Your task to perform on an android device: toggle priority inbox in the gmail app Image 0: 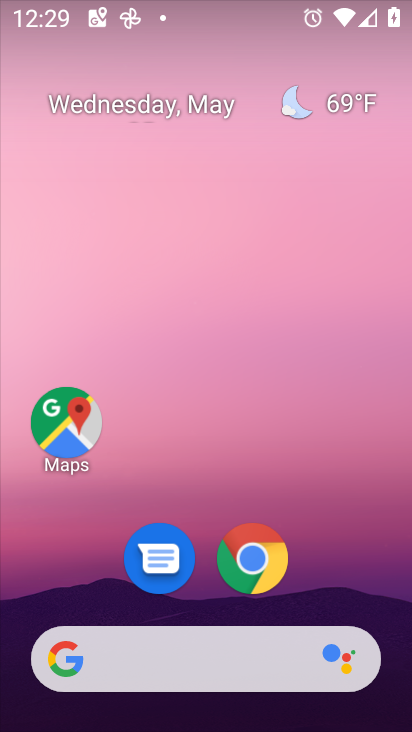
Step 0: drag from (397, 616) to (195, 77)
Your task to perform on an android device: toggle priority inbox in the gmail app Image 1: 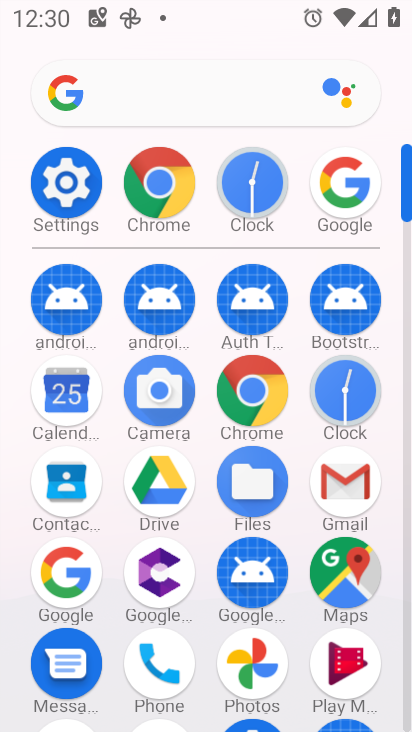
Step 1: click (330, 488)
Your task to perform on an android device: toggle priority inbox in the gmail app Image 2: 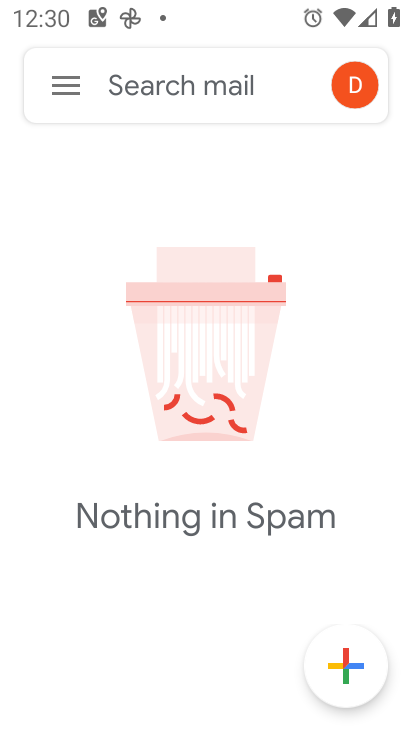
Step 2: click (71, 88)
Your task to perform on an android device: toggle priority inbox in the gmail app Image 3: 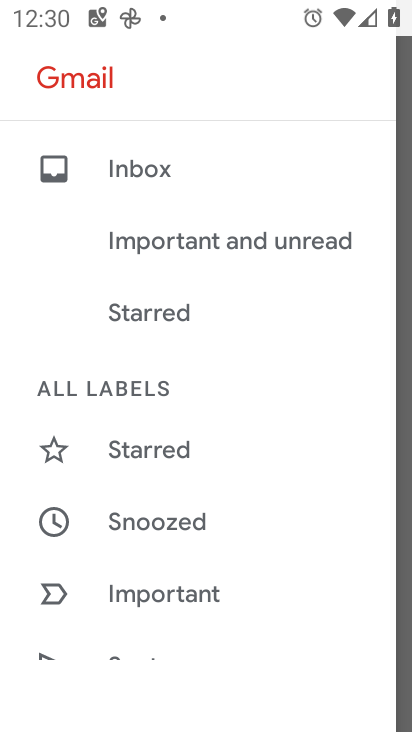
Step 3: drag from (199, 595) to (226, 131)
Your task to perform on an android device: toggle priority inbox in the gmail app Image 4: 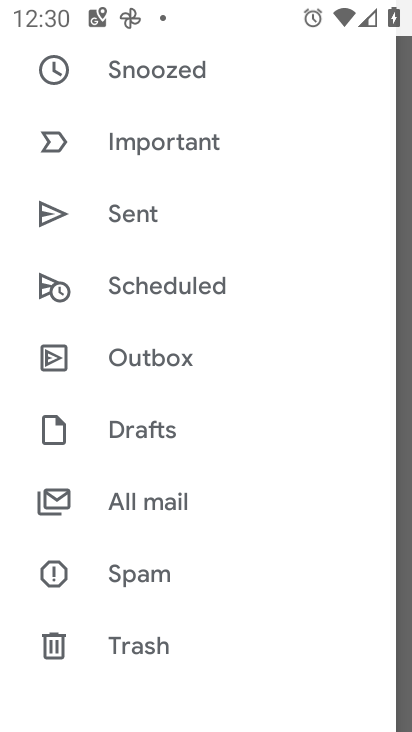
Step 4: drag from (205, 611) to (210, 168)
Your task to perform on an android device: toggle priority inbox in the gmail app Image 5: 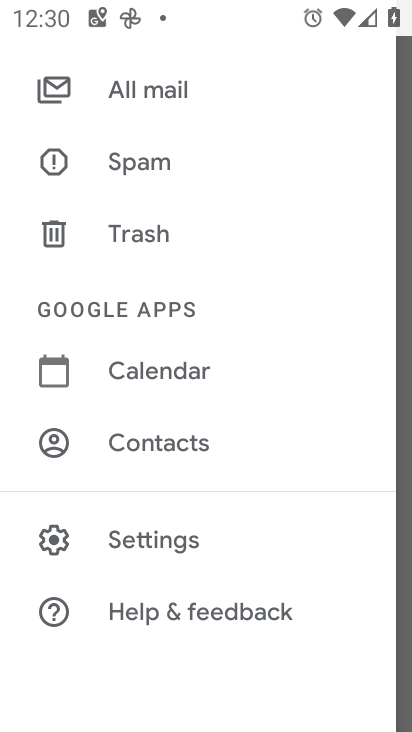
Step 5: click (182, 547)
Your task to perform on an android device: toggle priority inbox in the gmail app Image 6: 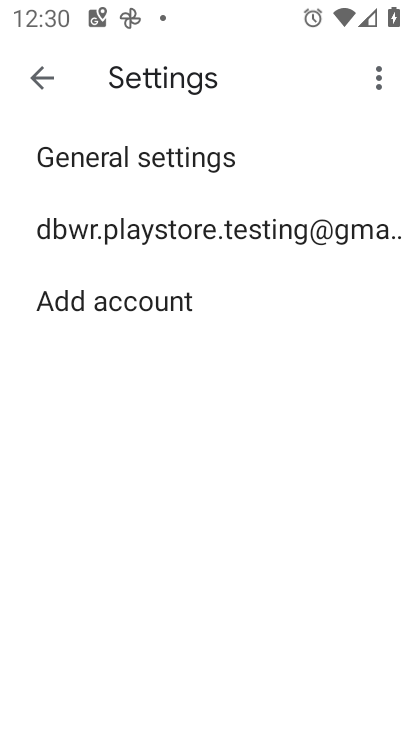
Step 6: click (192, 211)
Your task to perform on an android device: toggle priority inbox in the gmail app Image 7: 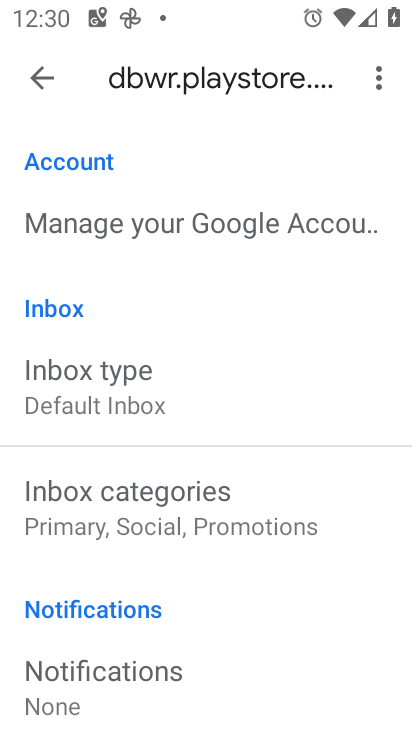
Step 7: click (185, 364)
Your task to perform on an android device: toggle priority inbox in the gmail app Image 8: 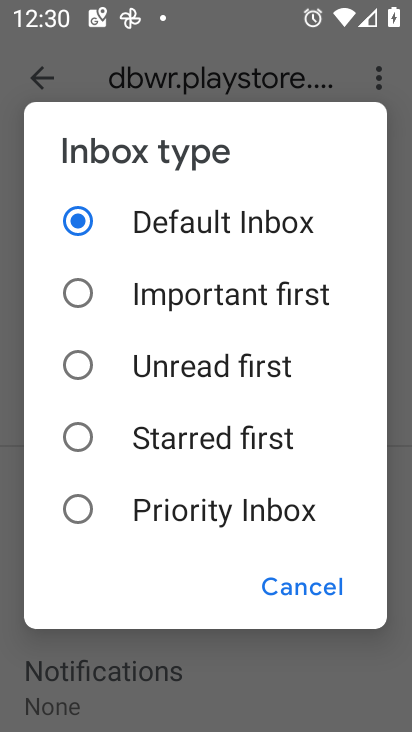
Step 8: task complete